Your task to perform on an android device: Search for a home improvement project you can do. Image 0: 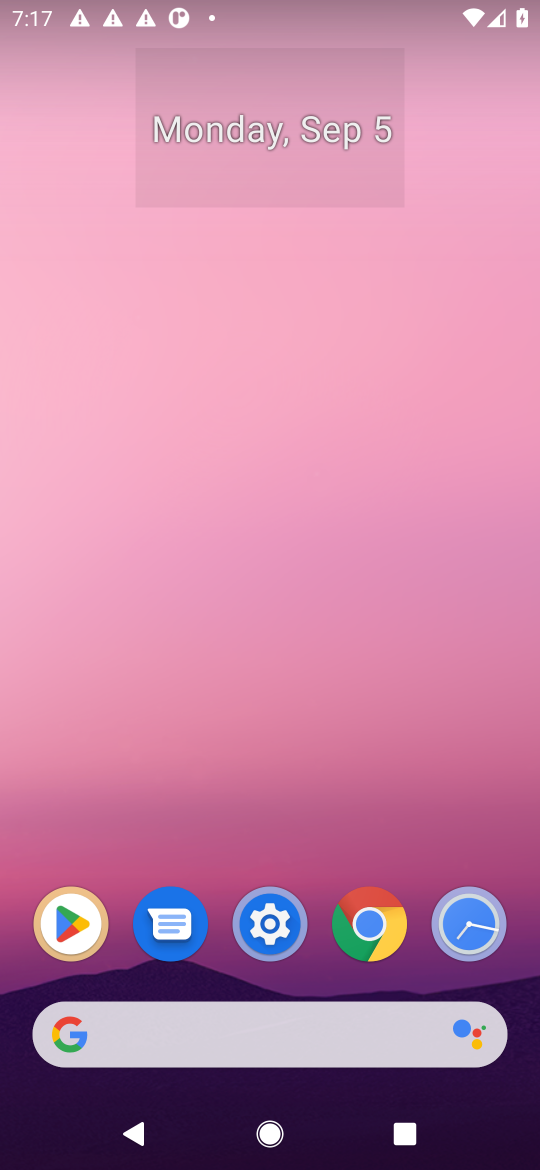
Step 0: click (317, 1037)
Your task to perform on an android device: Search for a home improvement project you can do. Image 1: 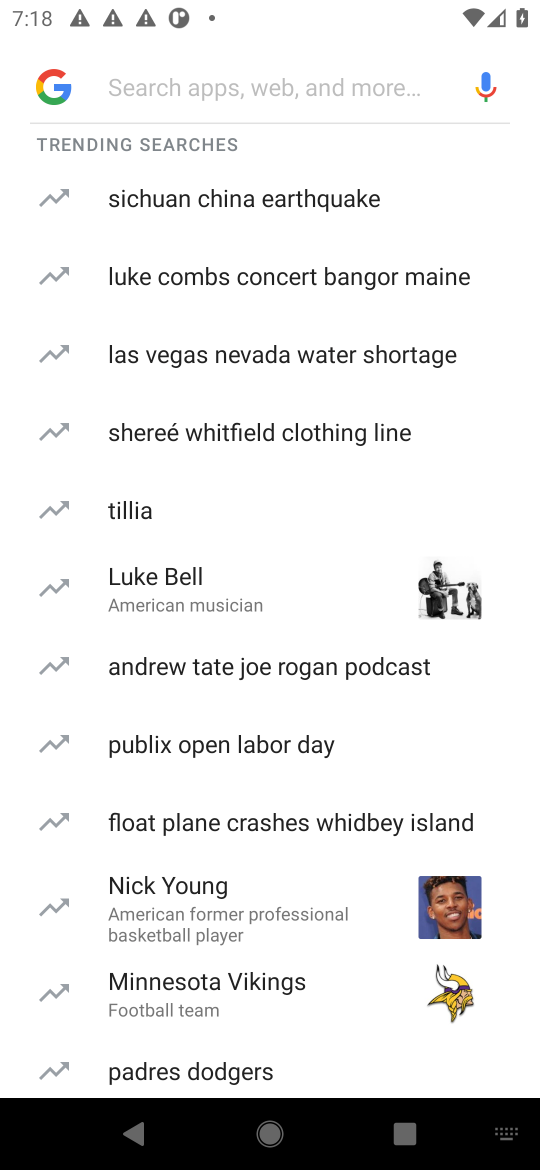
Step 1: type "home improvement project you can do"
Your task to perform on an android device: Search for a home improvement project you can do. Image 2: 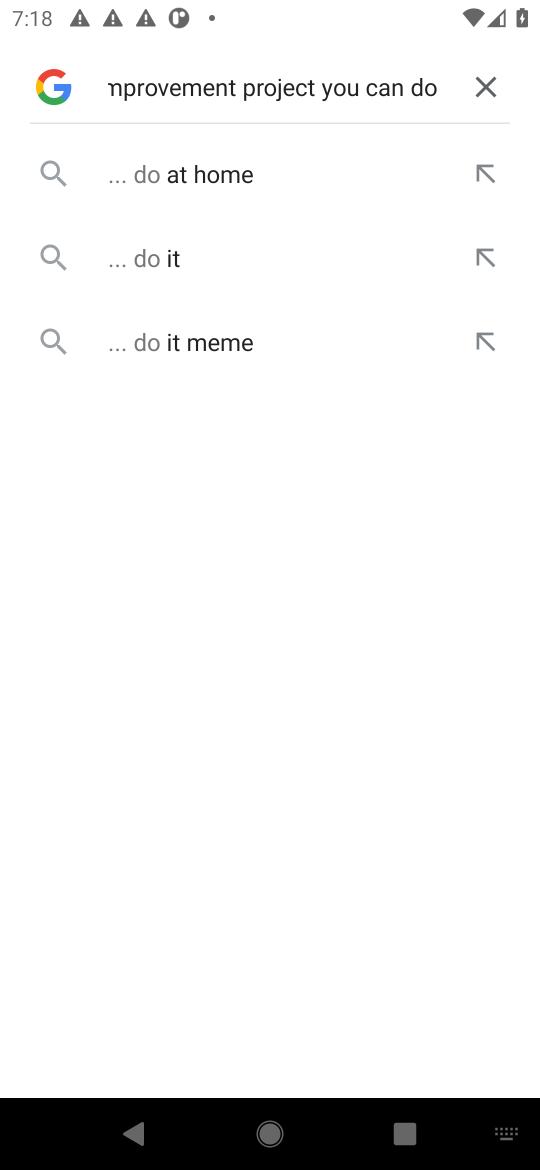
Step 2: press enter
Your task to perform on an android device: Search for a home improvement project you can do. Image 3: 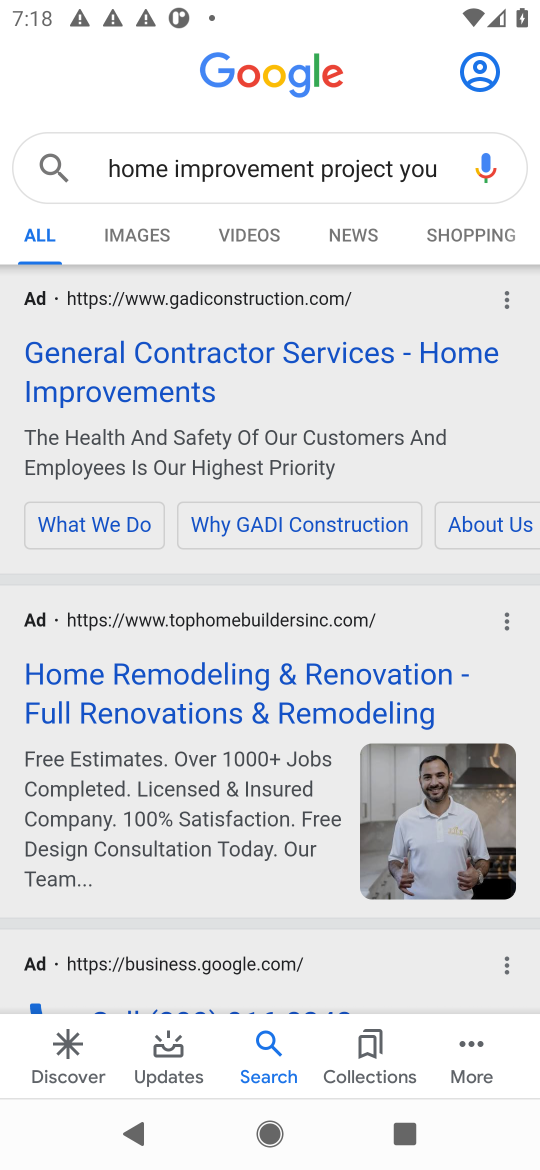
Step 3: task complete